Your task to perform on an android device: move a message to another label in the gmail app Image 0: 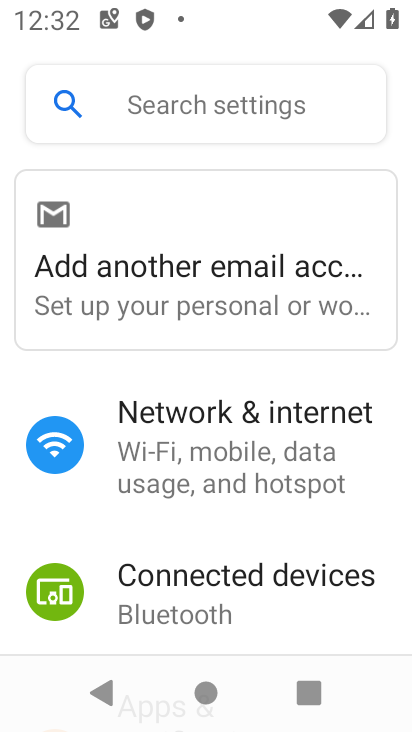
Step 0: press home button
Your task to perform on an android device: move a message to another label in the gmail app Image 1: 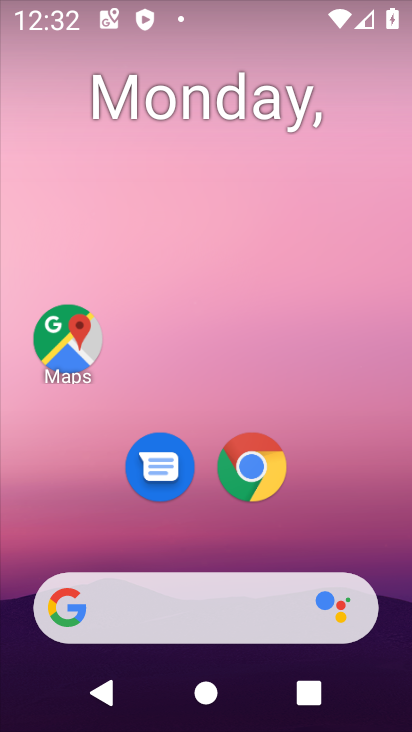
Step 1: drag from (393, 595) to (322, 73)
Your task to perform on an android device: move a message to another label in the gmail app Image 2: 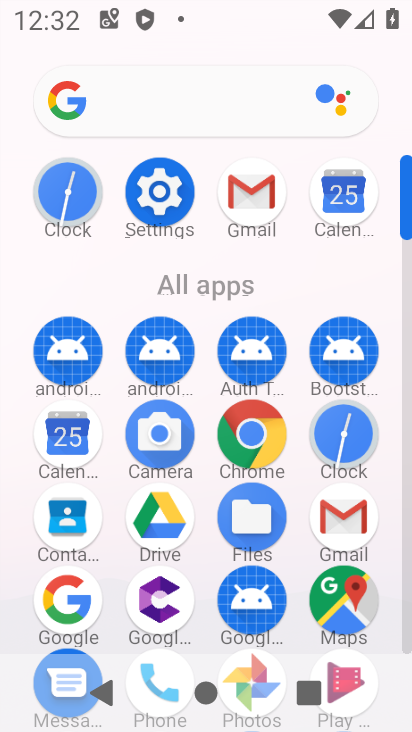
Step 2: click (406, 631)
Your task to perform on an android device: move a message to another label in the gmail app Image 3: 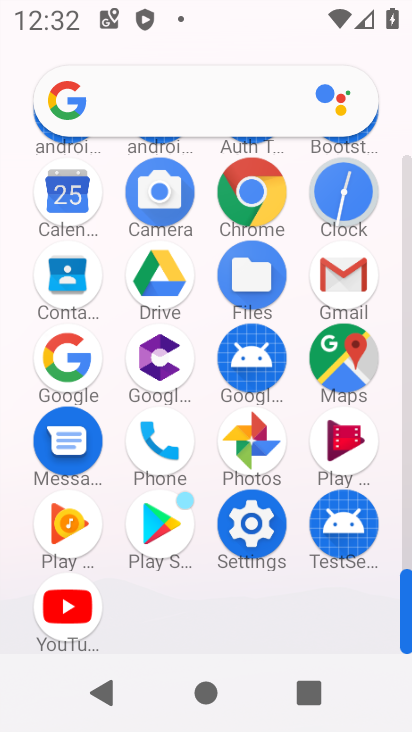
Step 3: click (338, 277)
Your task to perform on an android device: move a message to another label in the gmail app Image 4: 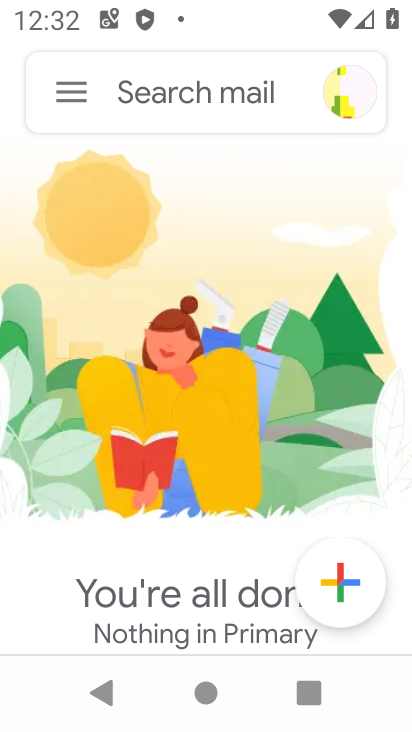
Step 4: click (68, 94)
Your task to perform on an android device: move a message to another label in the gmail app Image 5: 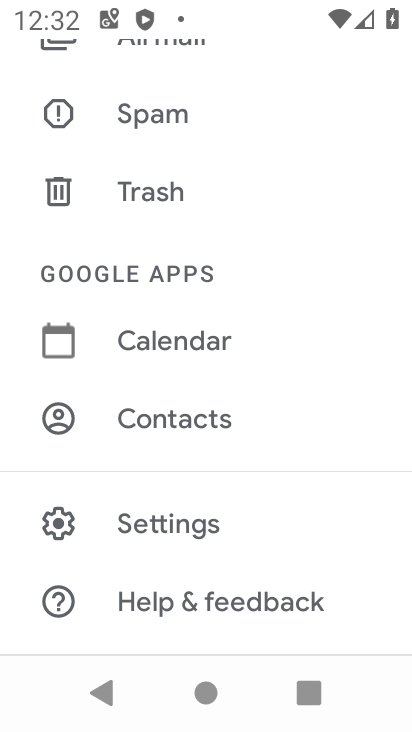
Step 5: drag from (259, 129) to (262, 429)
Your task to perform on an android device: move a message to another label in the gmail app Image 6: 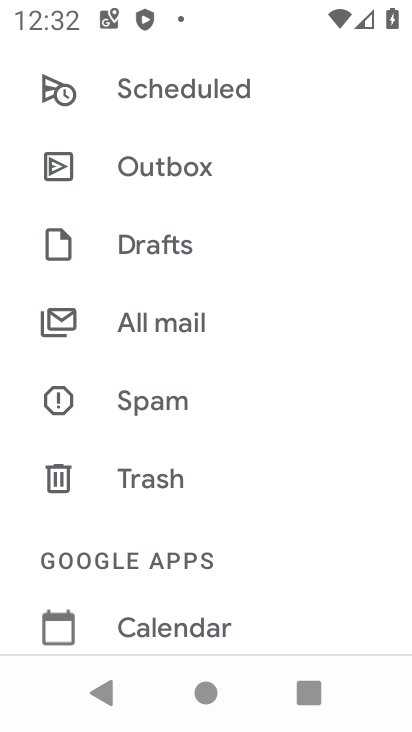
Step 6: click (155, 323)
Your task to perform on an android device: move a message to another label in the gmail app Image 7: 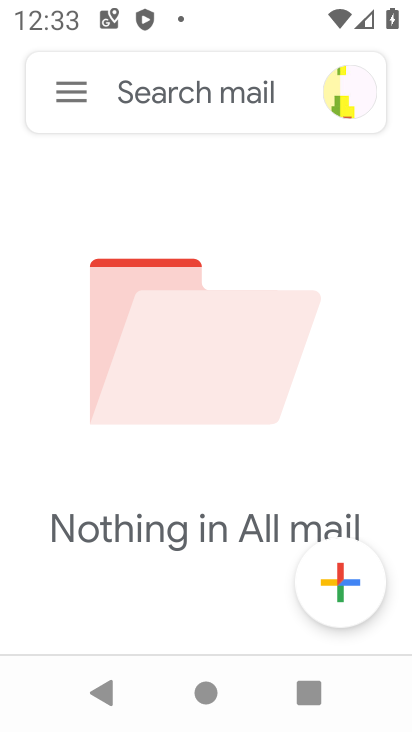
Step 7: task complete